Your task to perform on an android device: Open Youtube and go to "Your channel" Image 0: 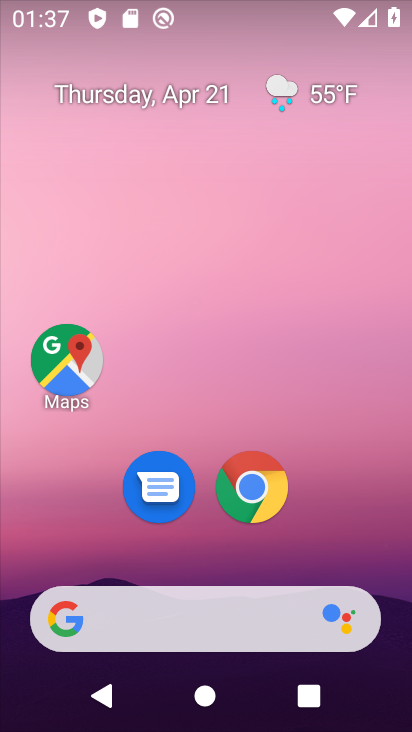
Step 0: drag from (323, 538) to (336, 44)
Your task to perform on an android device: Open Youtube and go to "Your channel" Image 1: 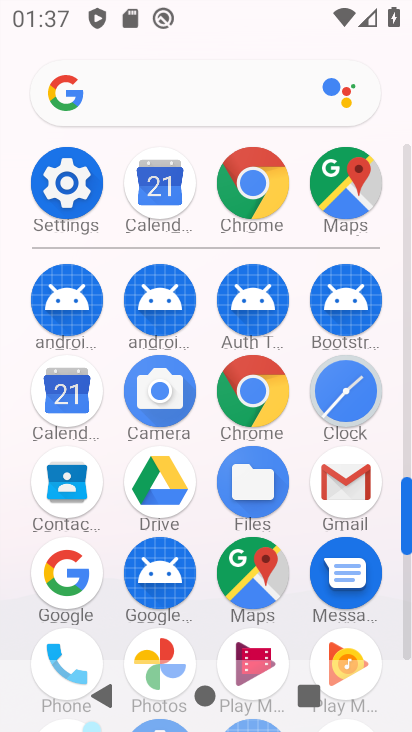
Step 1: drag from (208, 514) to (187, 304)
Your task to perform on an android device: Open Youtube and go to "Your channel" Image 2: 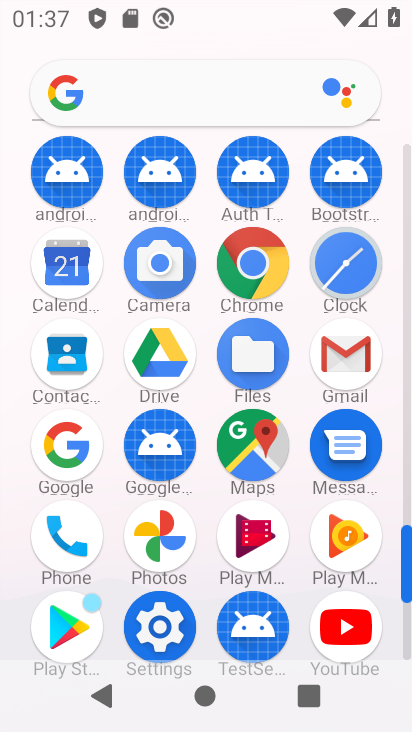
Step 2: click (340, 634)
Your task to perform on an android device: Open Youtube and go to "Your channel" Image 3: 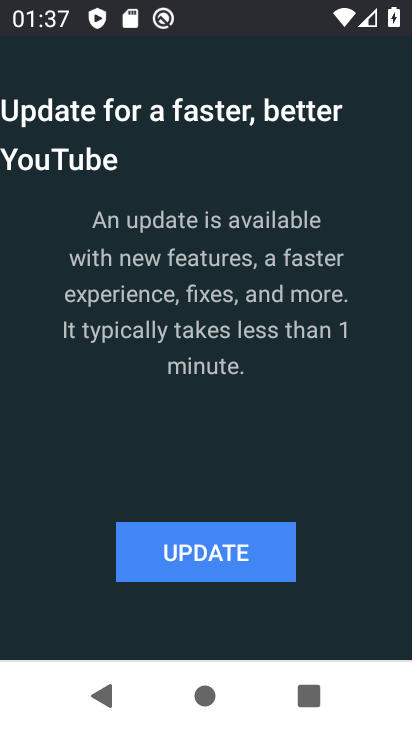
Step 3: click (255, 570)
Your task to perform on an android device: Open Youtube and go to "Your channel" Image 4: 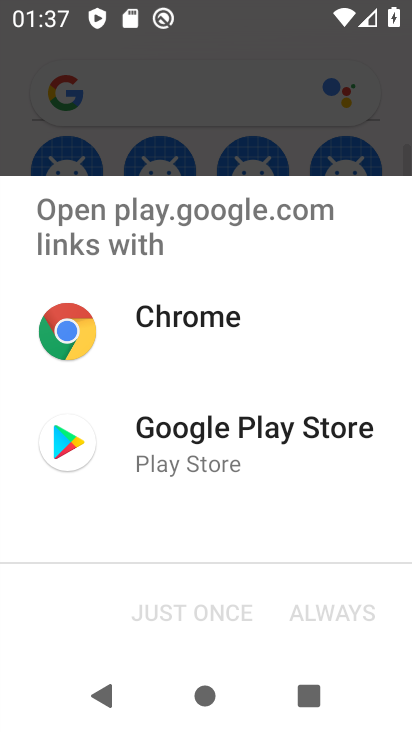
Step 4: click (246, 459)
Your task to perform on an android device: Open Youtube and go to "Your channel" Image 5: 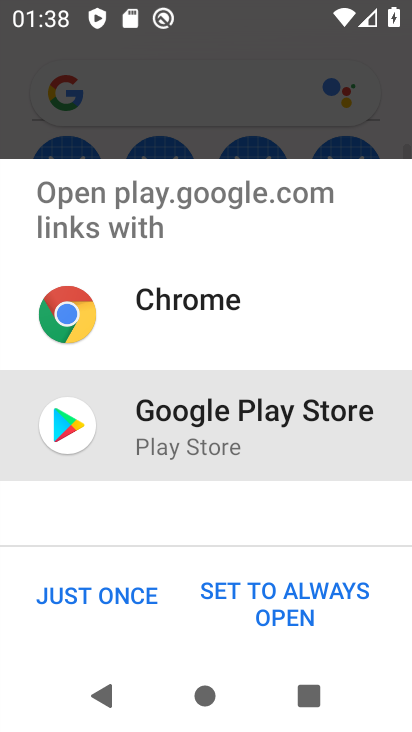
Step 5: click (94, 596)
Your task to perform on an android device: Open Youtube and go to "Your channel" Image 6: 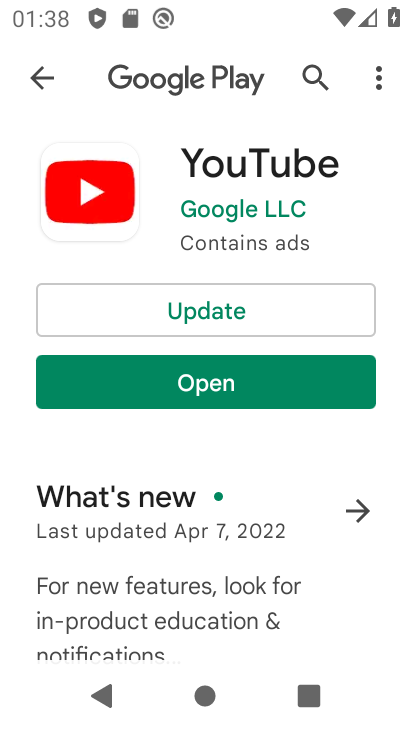
Step 6: click (266, 307)
Your task to perform on an android device: Open Youtube and go to "Your channel" Image 7: 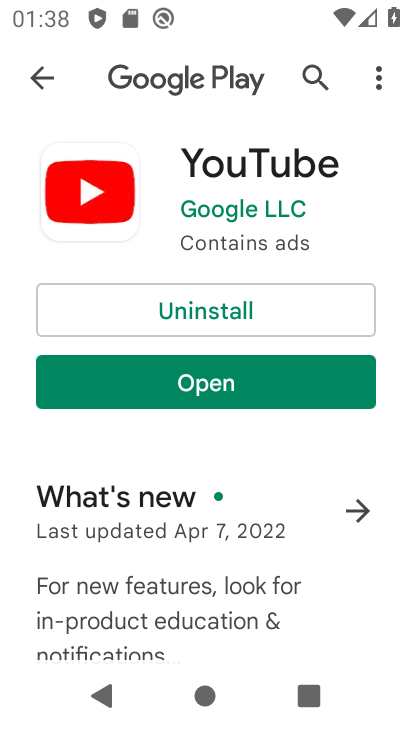
Step 7: click (222, 385)
Your task to perform on an android device: Open Youtube and go to "Your channel" Image 8: 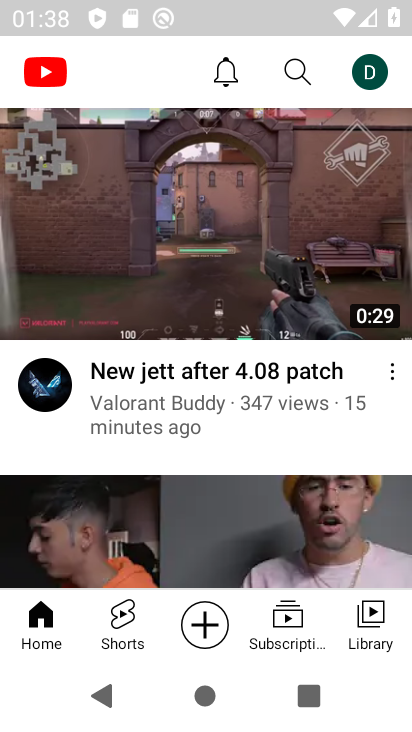
Step 8: click (353, 69)
Your task to perform on an android device: Open Youtube and go to "Your channel" Image 9: 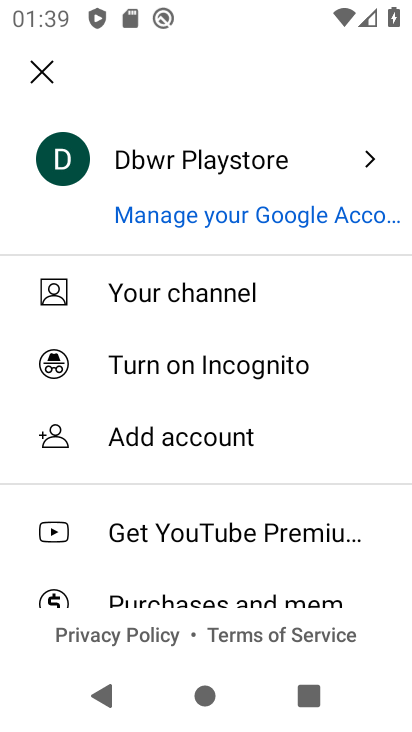
Step 9: click (154, 283)
Your task to perform on an android device: Open Youtube and go to "Your channel" Image 10: 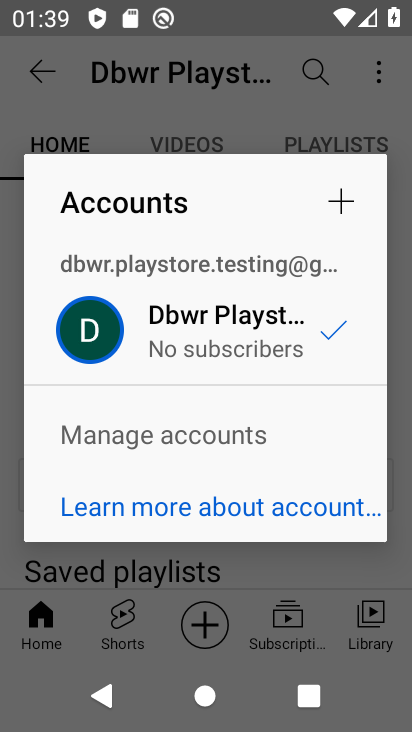
Step 10: click (220, 93)
Your task to perform on an android device: Open Youtube and go to "Your channel" Image 11: 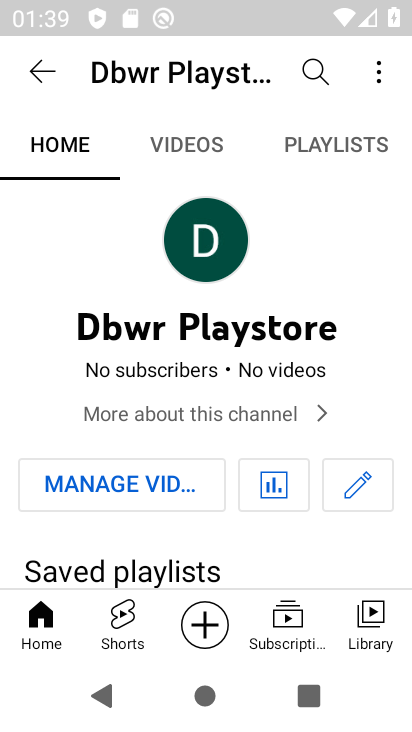
Step 11: task complete